Your task to perform on an android device: See recent photos Image 0: 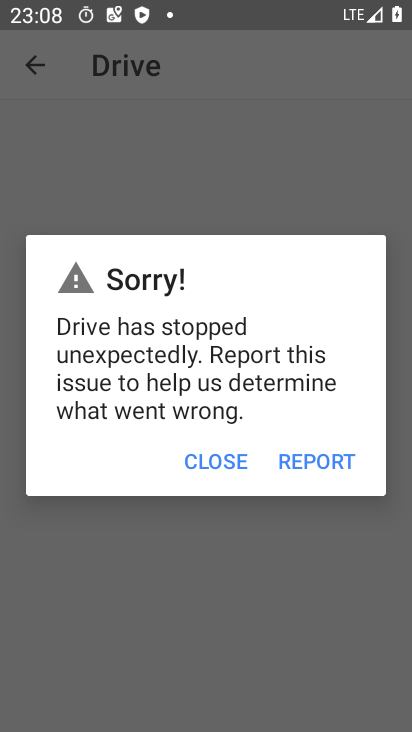
Step 0: press home button
Your task to perform on an android device: See recent photos Image 1: 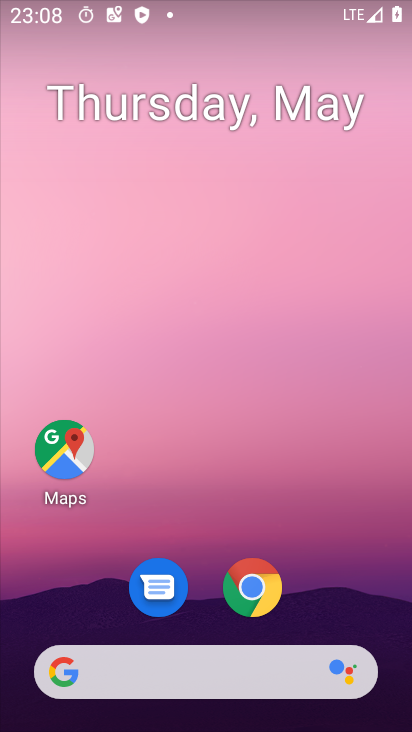
Step 1: drag from (344, 625) to (309, 7)
Your task to perform on an android device: See recent photos Image 2: 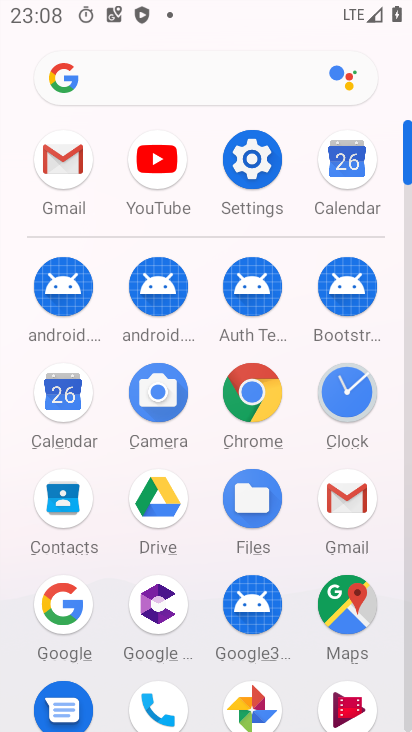
Step 2: click (410, 553)
Your task to perform on an android device: See recent photos Image 3: 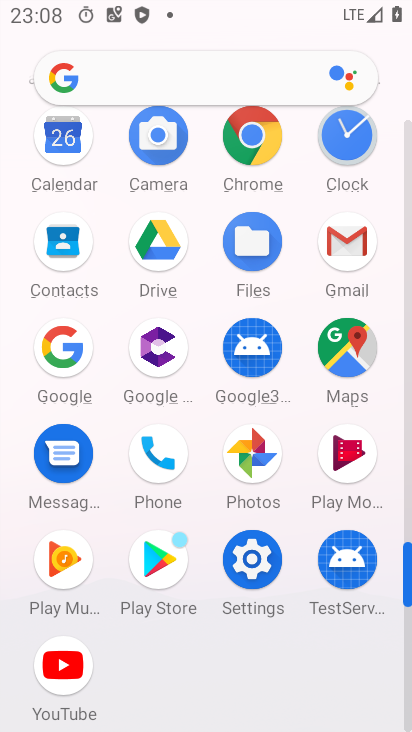
Step 3: click (241, 468)
Your task to perform on an android device: See recent photos Image 4: 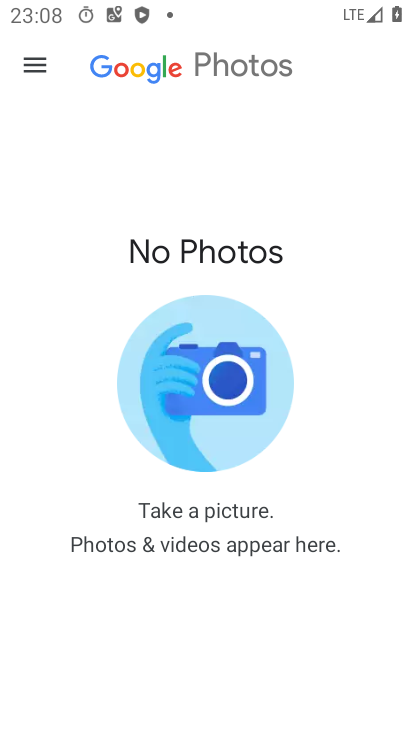
Step 4: click (220, 380)
Your task to perform on an android device: See recent photos Image 5: 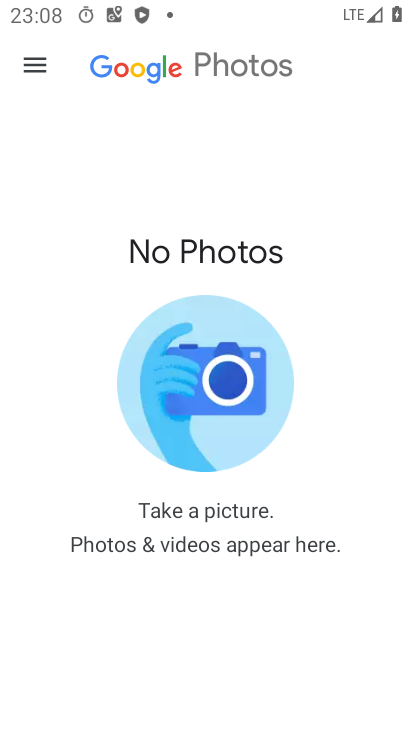
Step 5: click (40, 71)
Your task to perform on an android device: See recent photos Image 6: 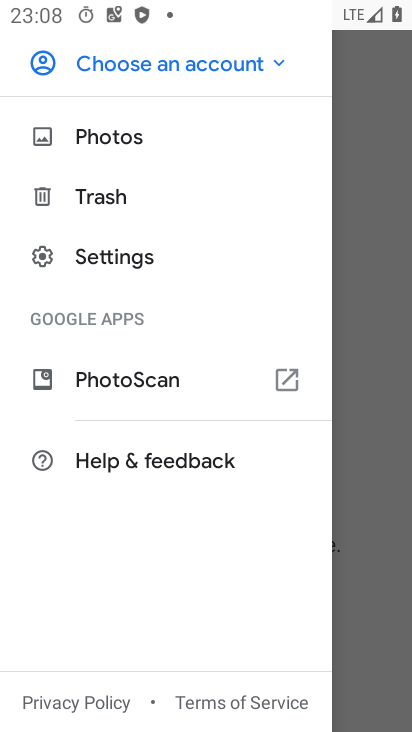
Step 6: click (85, 255)
Your task to perform on an android device: See recent photos Image 7: 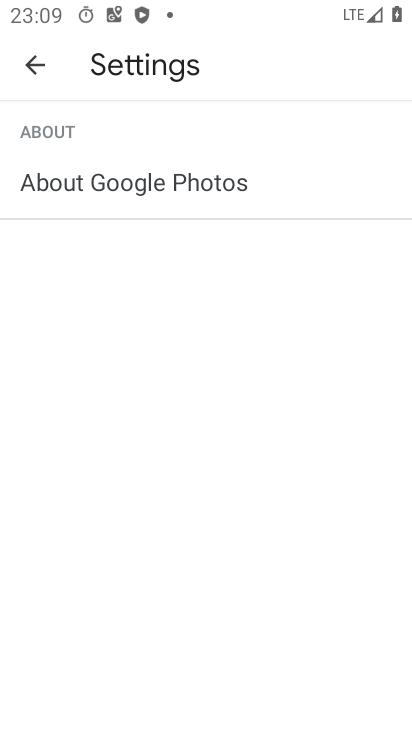
Step 7: task complete